Your task to perform on an android device: What's on my calendar tomorrow? Image 0: 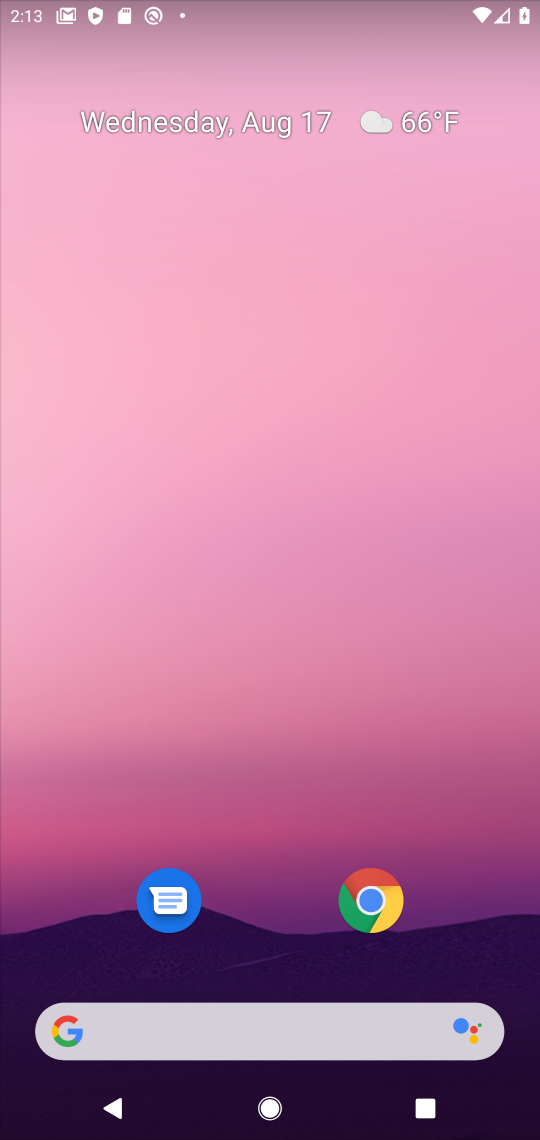
Step 0: press home button
Your task to perform on an android device: What's on my calendar tomorrow? Image 1: 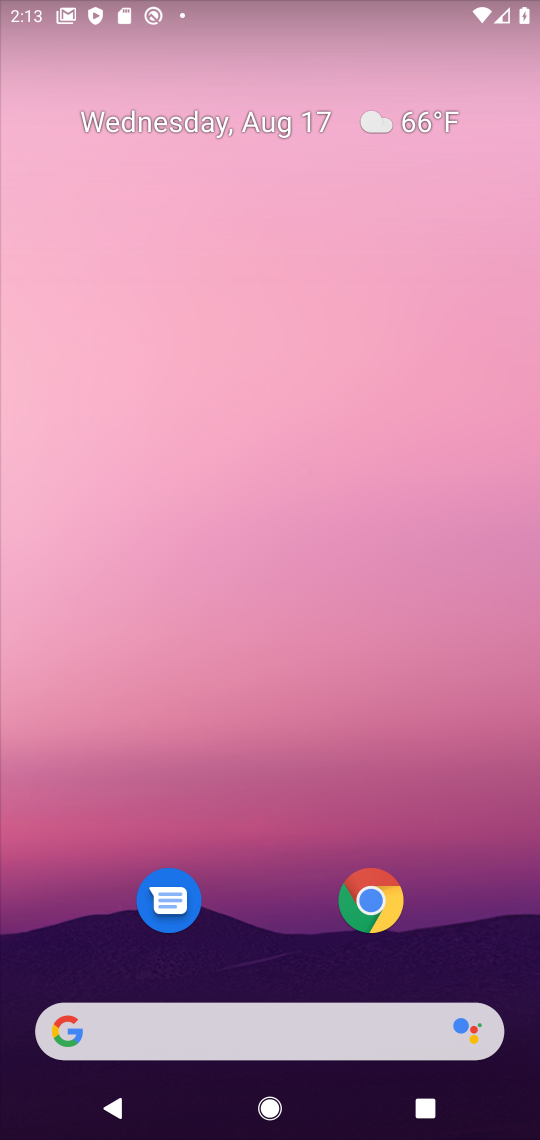
Step 1: click (310, 193)
Your task to perform on an android device: What's on my calendar tomorrow? Image 2: 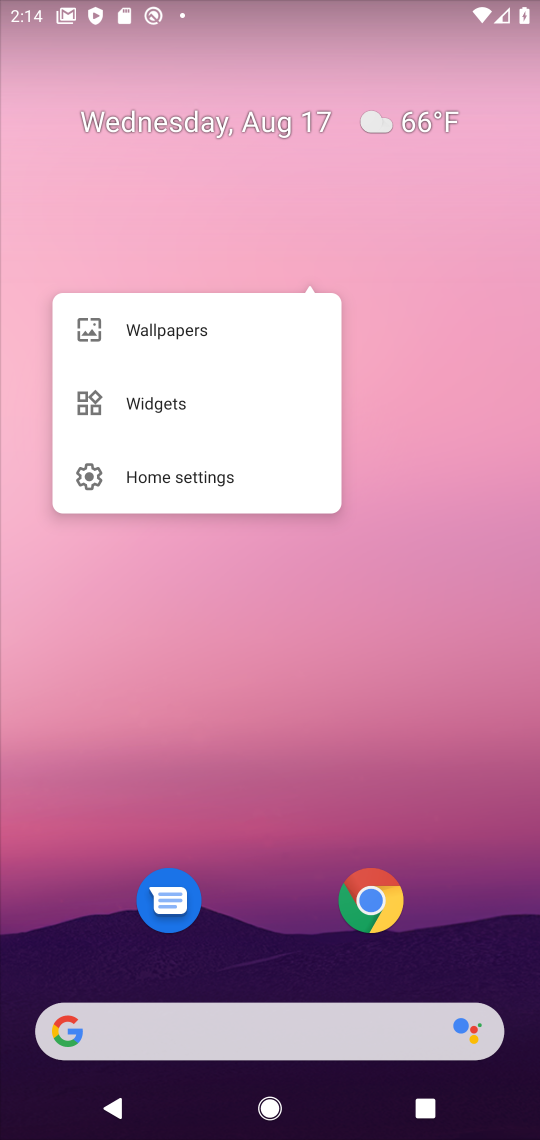
Step 2: press home button
Your task to perform on an android device: What's on my calendar tomorrow? Image 3: 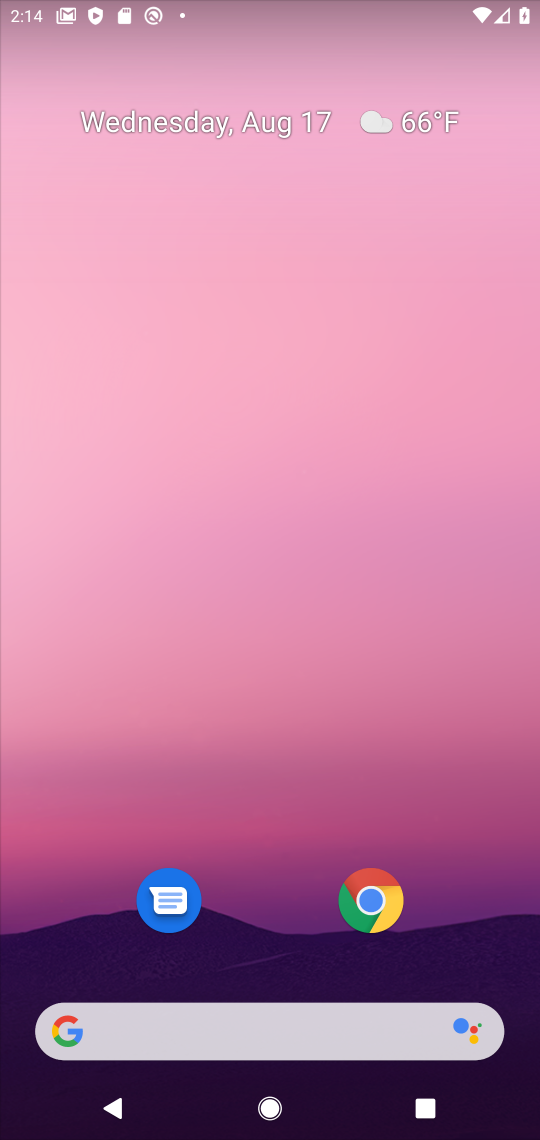
Step 3: drag from (306, 1031) to (502, 21)
Your task to perform on an android device: What's on my calendar tomorrow? Image 4: 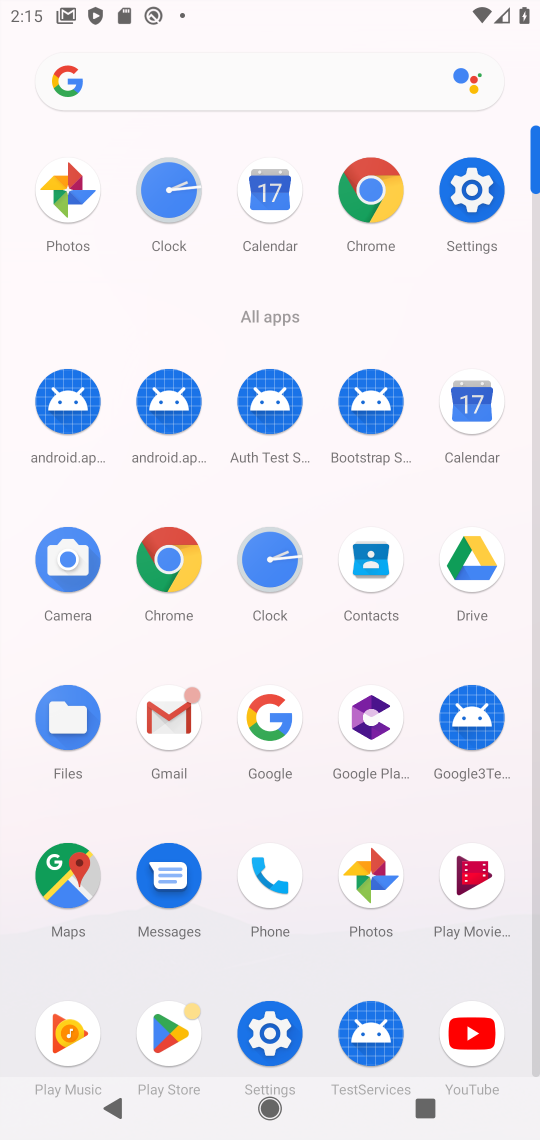
Step 4: click (463, 413)
Your task to perform on an android device: What's on my calendar tomorrow? Image 5: 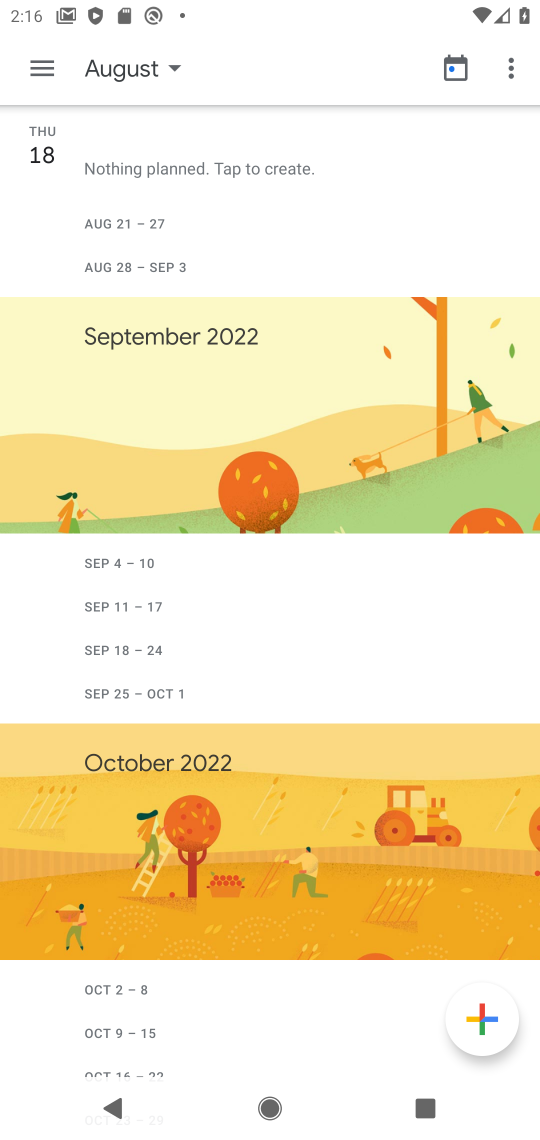
Step 5: task complete